Your task to perform on an android device: Show me recent news Image 0: 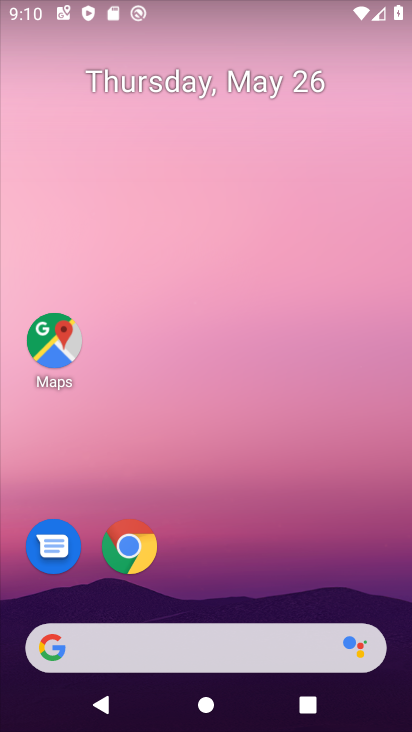
Step 0: click (237, 660)
Your task to perform on an android device: Show me recent news Image 1: 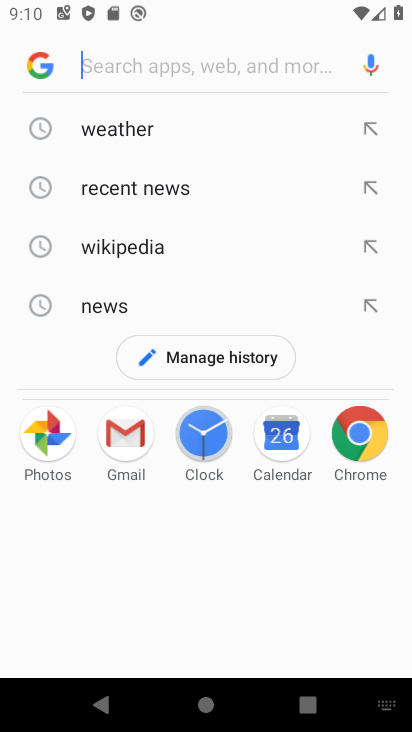
Step 1: click (109, 189)
Your task to perform on an android device: Show me recent news Image 2: 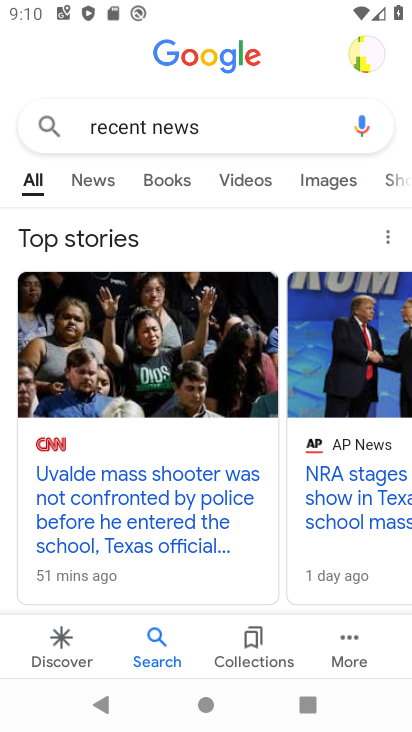
Step 2: task complete